Your task to perform on an android device: Set the phone to "Do not disturb". Image 0: 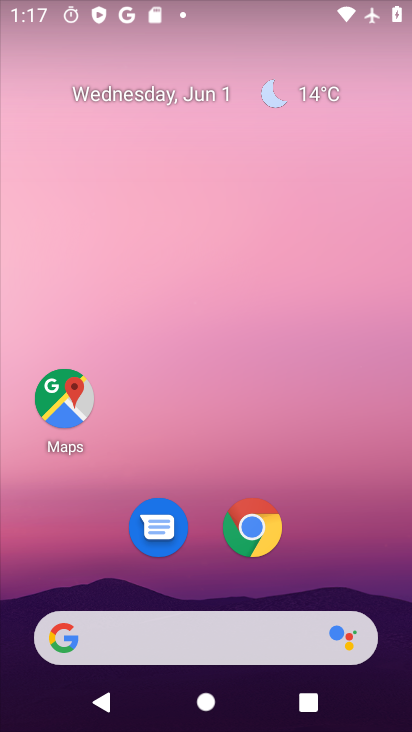
Step 0: drag from (214, 610) to (309, 4)
Your task to perform on an android device: Set the phone to "Do not disturb". Image 1: 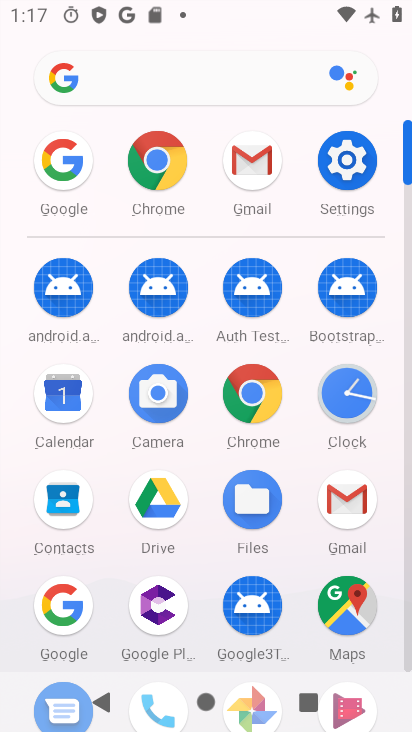
Step 1: drag from (322, 17) to (288, 436)
Your task to perform on an android device: Set the phone to "Do not disturb". Image 2: 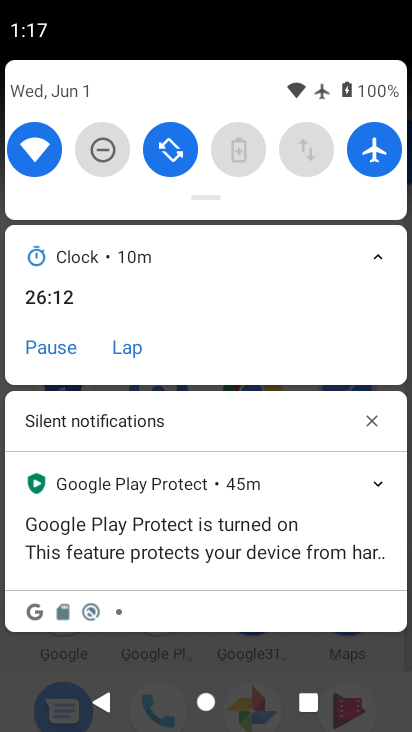
Step 2: click (110, 156)
Your task to perform on an android device: Set the phone to "Do not disturb". Image 3: 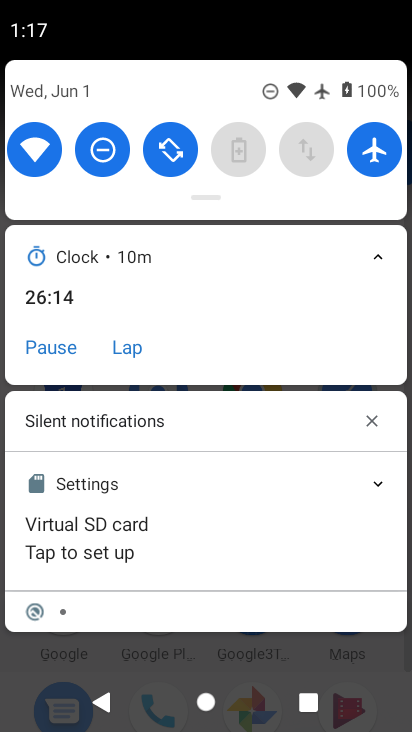
Step 3: task complete